Your task to perform on an android device: set an alarm Image 0: 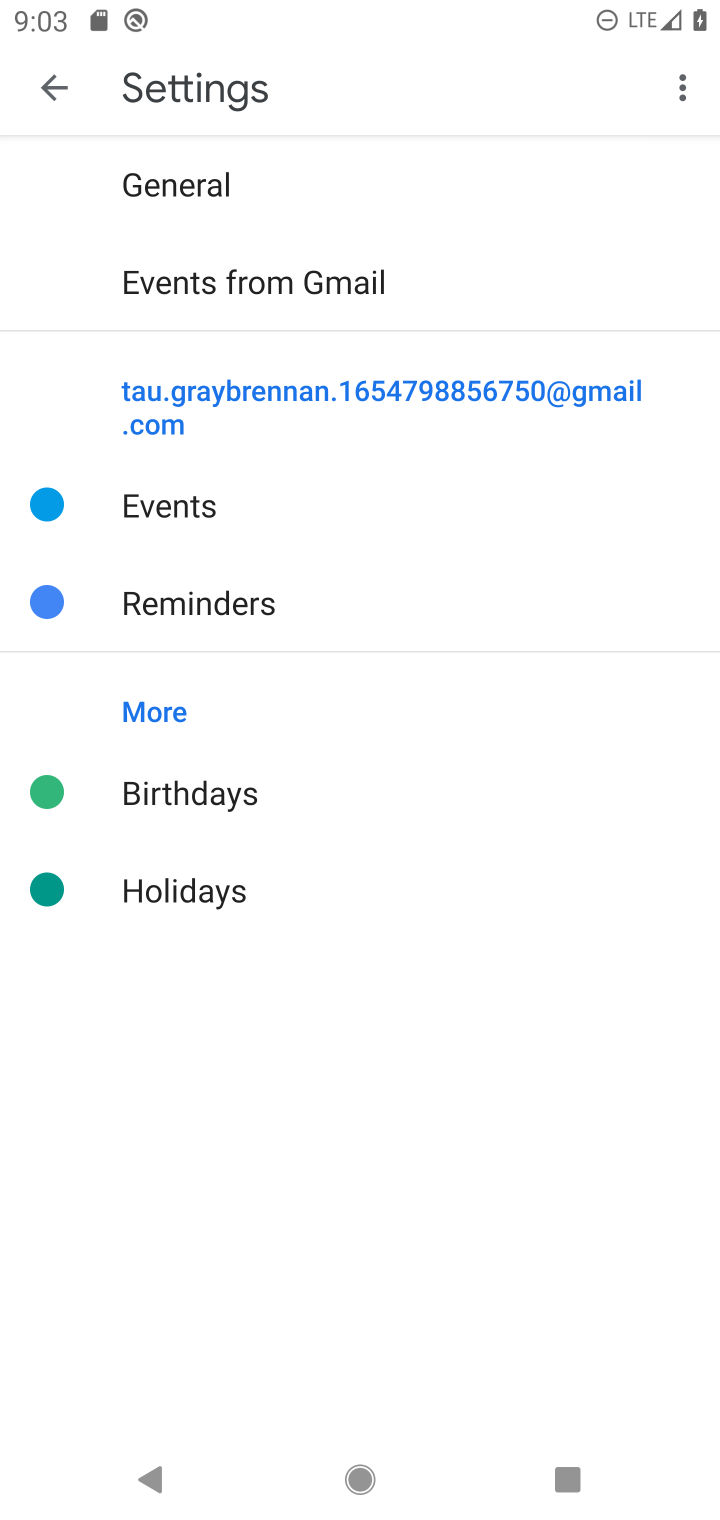
Step 0: press home button
Your task to perform on an android device: set an alarm Image 1: 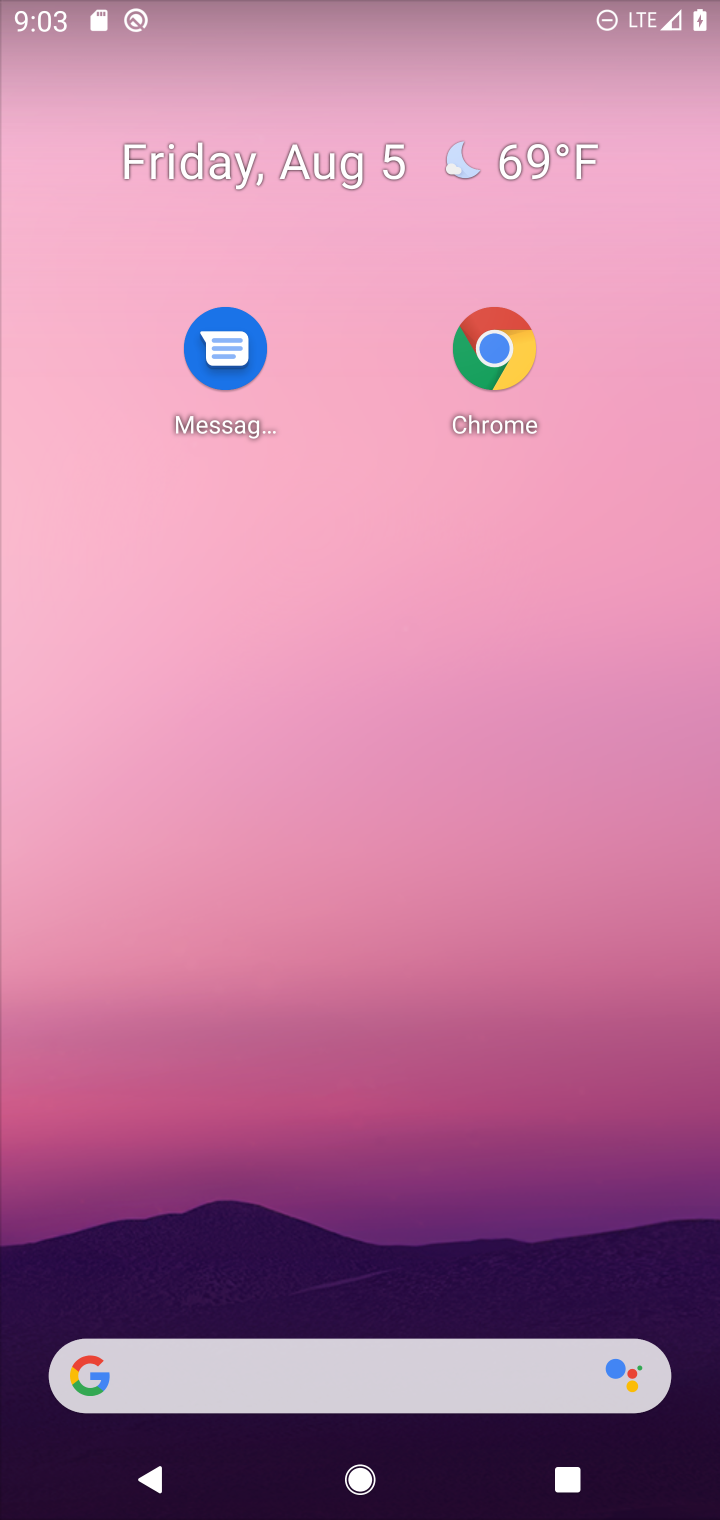
Step 1: drag from (397, 1203) to (308, 591)
Your task to perform on an android device: set an alarm Image 2: 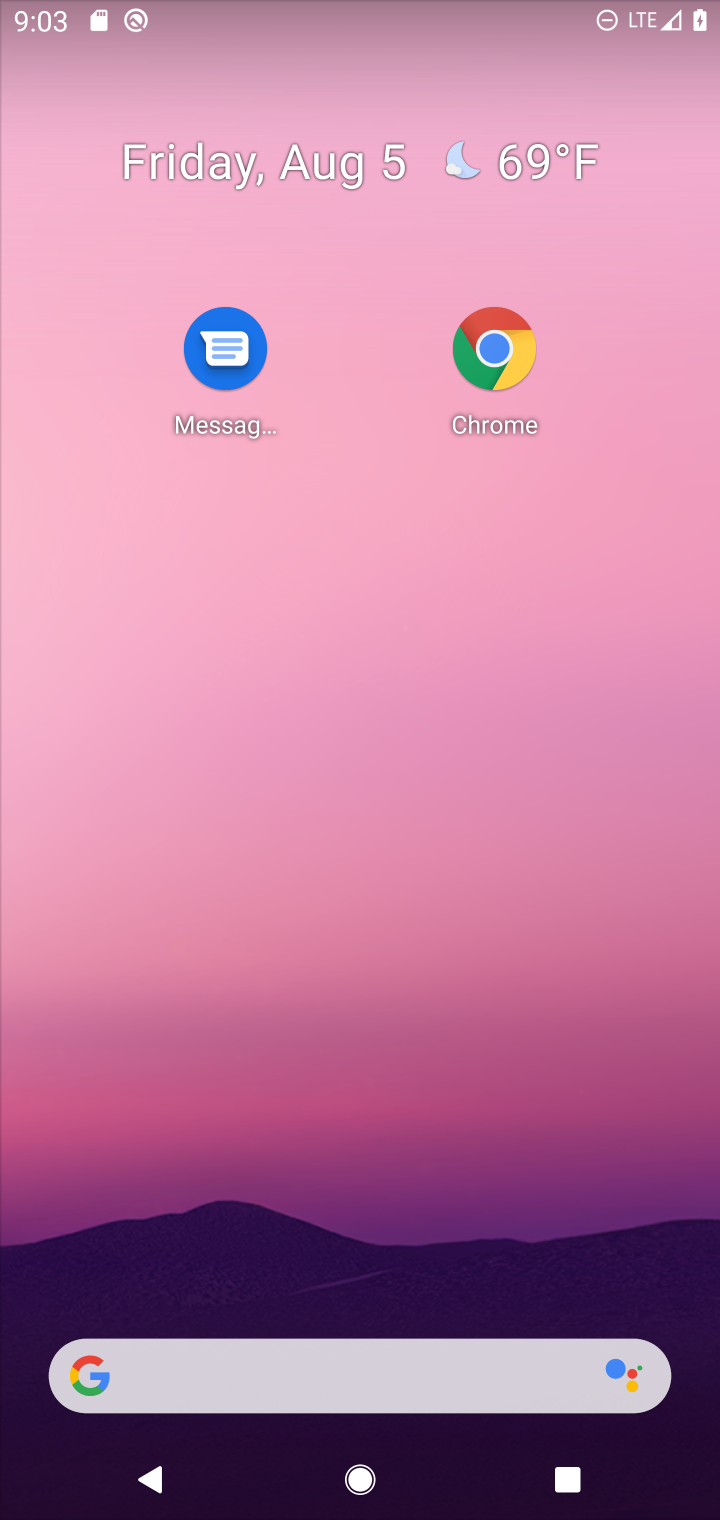
Step 2: drag from (442, 1385) to (335, 560)
Your task to perform on an android device: set an alarm Image 3: 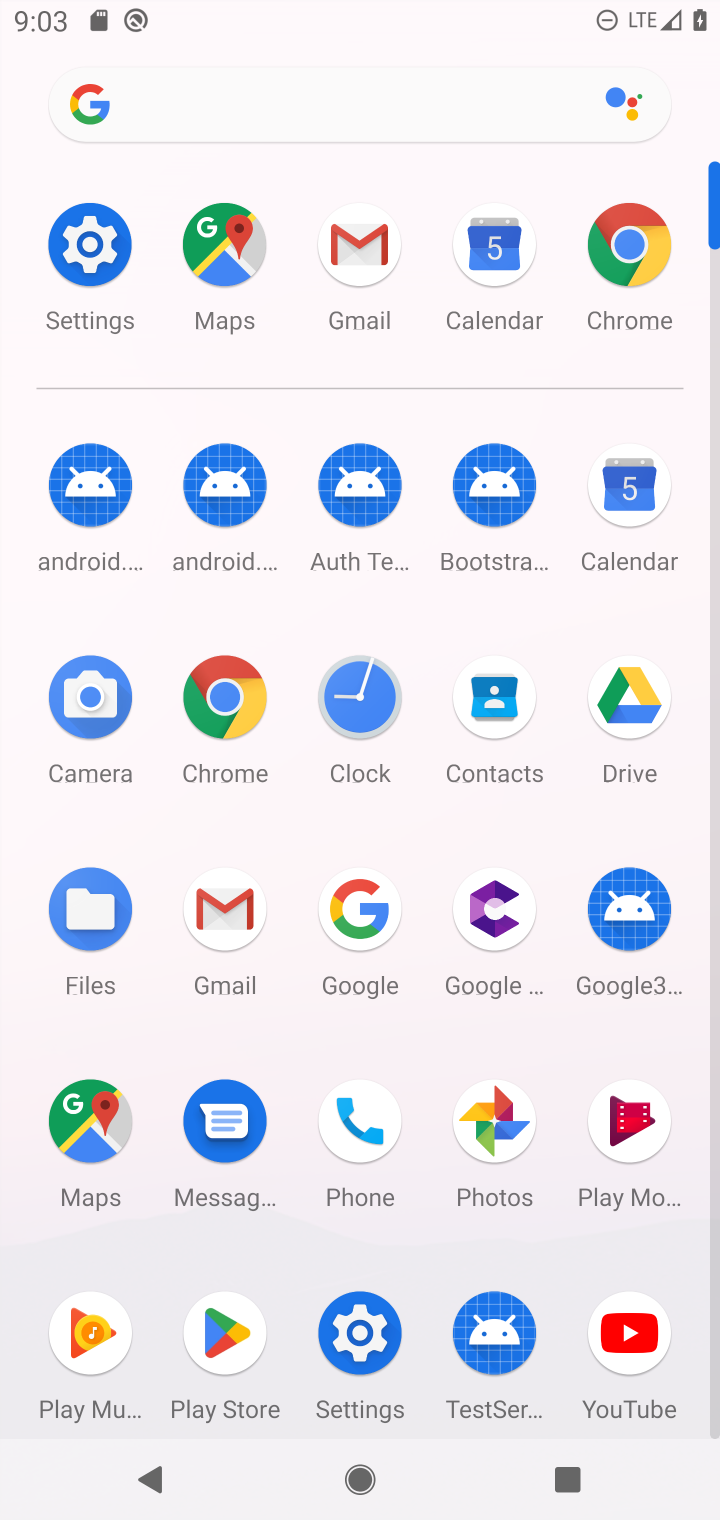
Step 3: click (399, 703)
Your task to perform on an android device: set an alarm Image 4: 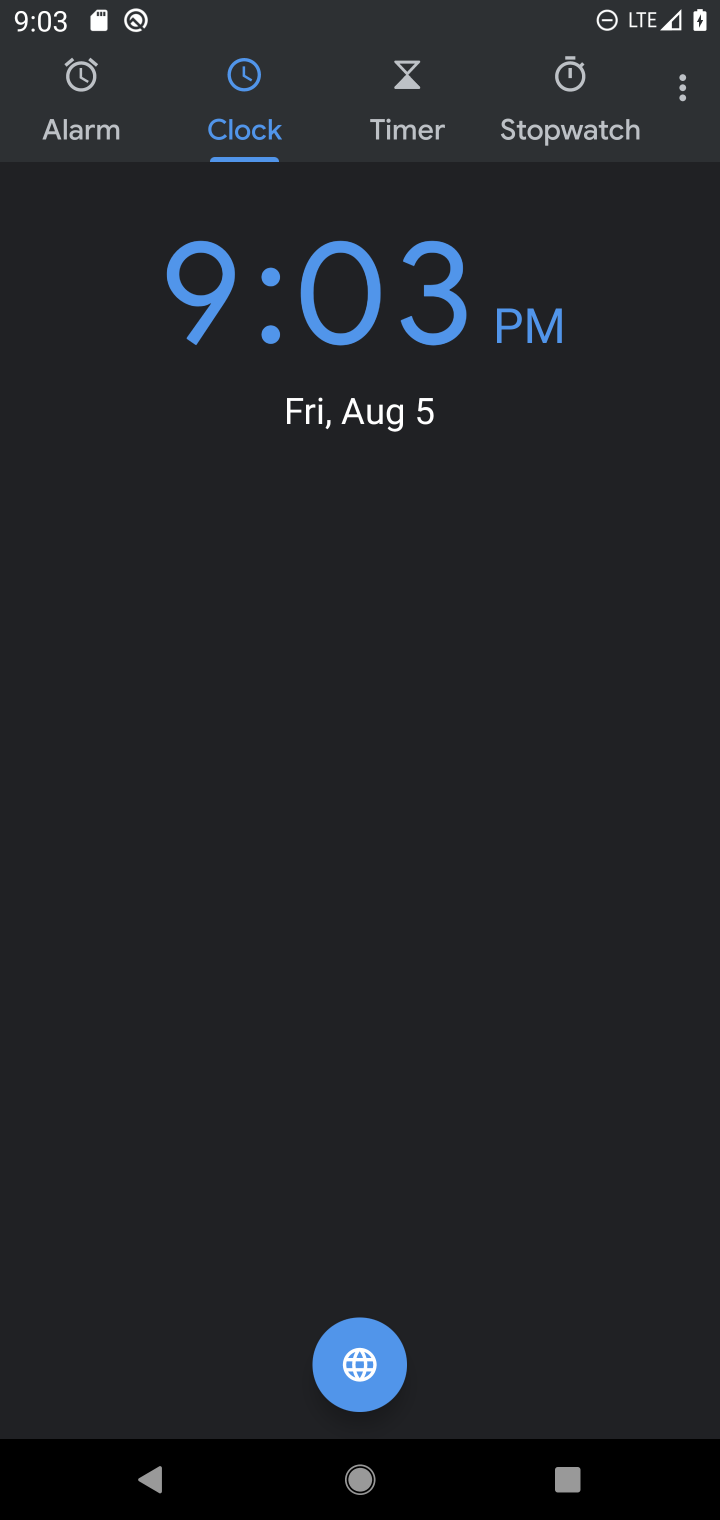
Step 4: click (58, 125)
Your task to perform on an android device: set an alarm Image 5: 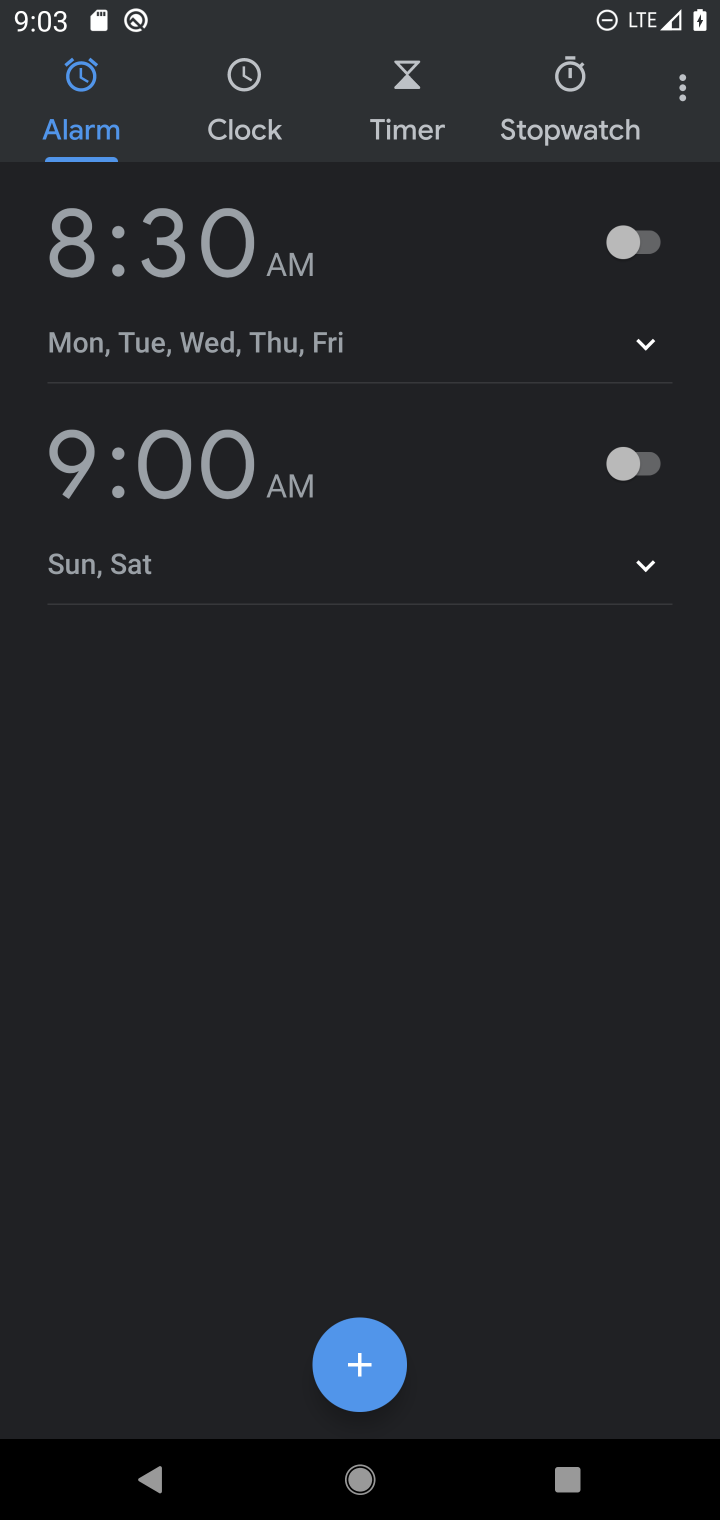
Step 5: click (653, 255)
Your task to perform on an android device: set an alarm Image 6: 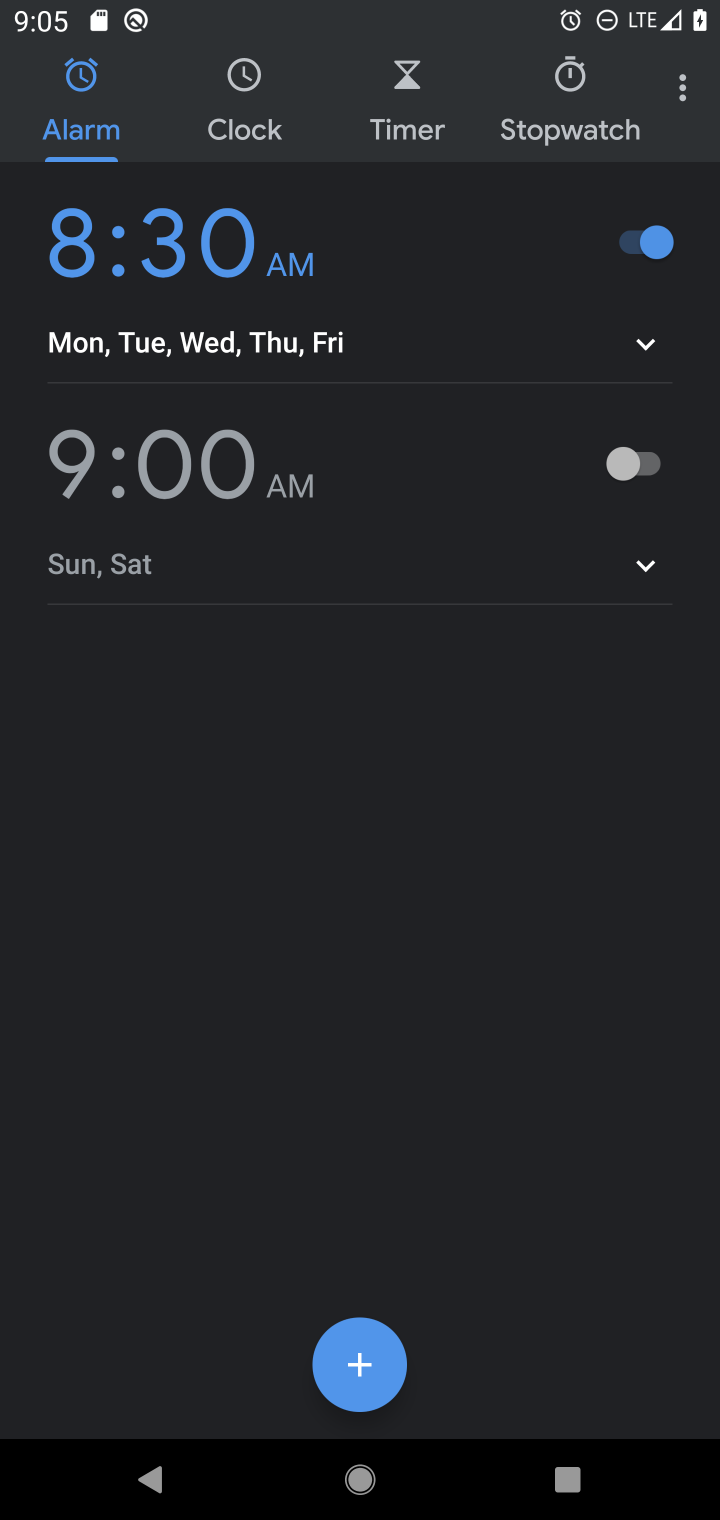
Step 6: task complete